Your task to perform on an android device: Show me the alarms in the clock app Image 0: 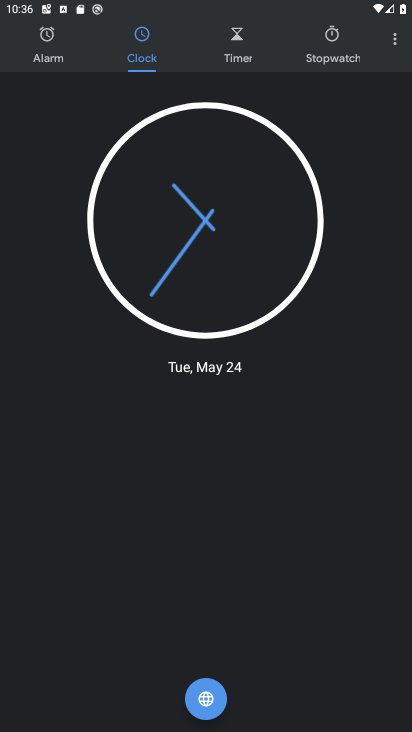
Step 0: click (333, 729)
Your task to perform on an android device: Show me the alarms in the clock app Image 1: 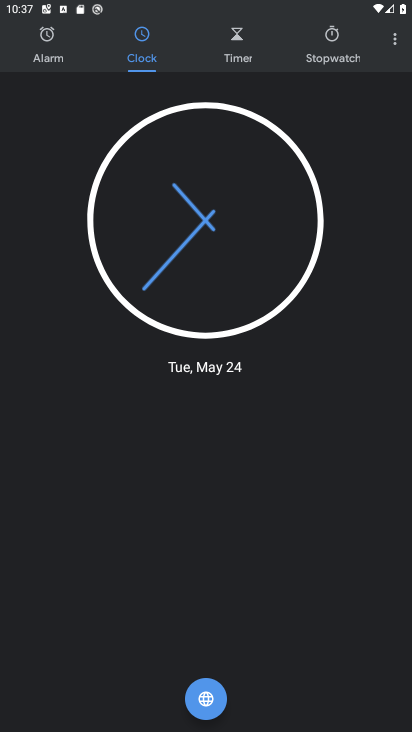
Step 1: click (40, 52)
Your task to perform on an android device: Show me the alarms in the clock app Image 2: 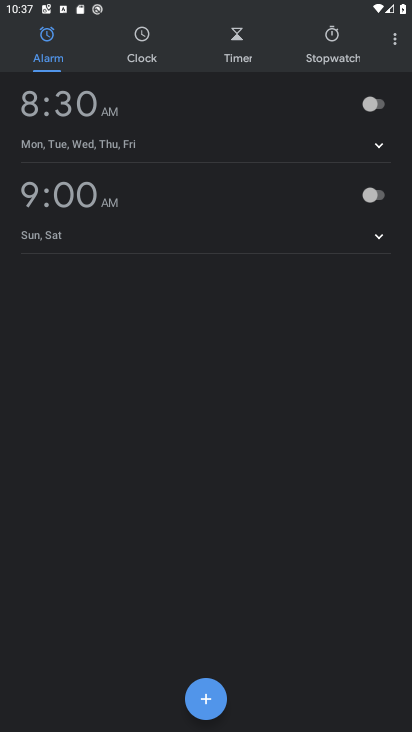
Step 2: task complete